Your task to perform on an android device: turn smart compose on in the gmail app Image 0: 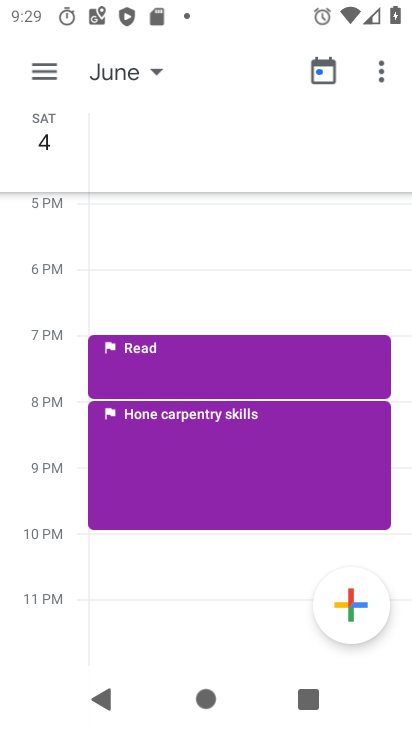
Step 0: press home button
Your task to perform on an android device: turn smart compose on in the gmail app Image 1: 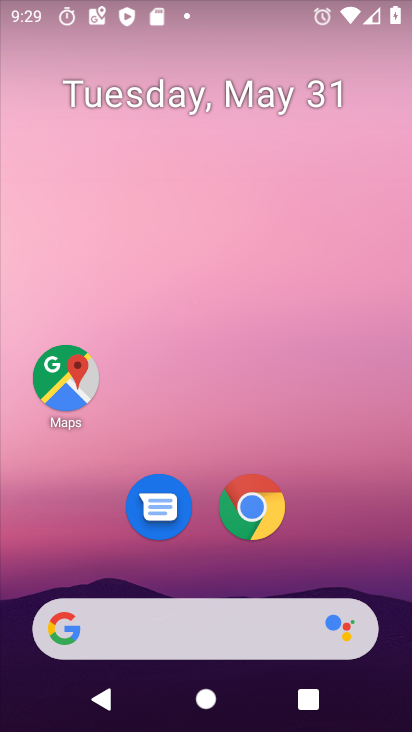
Step 1: drag from (371, 592) to (353, 33)
Your task to perform on an android device: turn smart compose on in the gmail app Image 2: 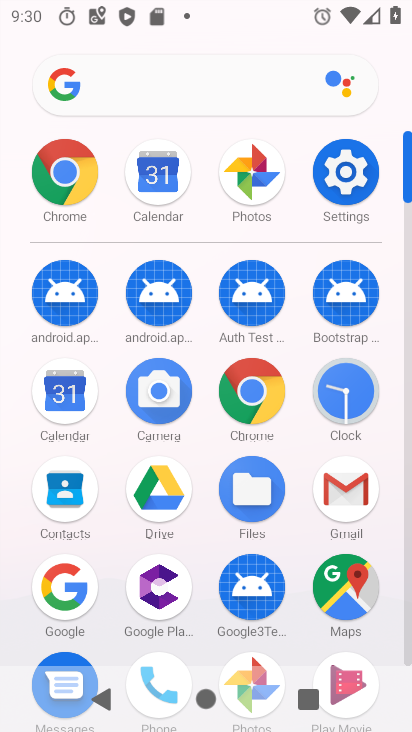
Step 2: click (334, 479)
Your task to perform on an android device: turn smart compose on in the gmail app Image 3: 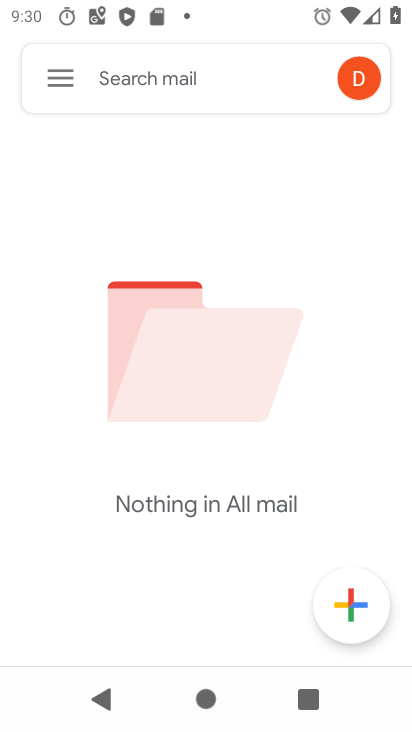
Step 3: click (56, 84)
Your task to perform on an android device: turn smart compose on in the gmail app Image 4: 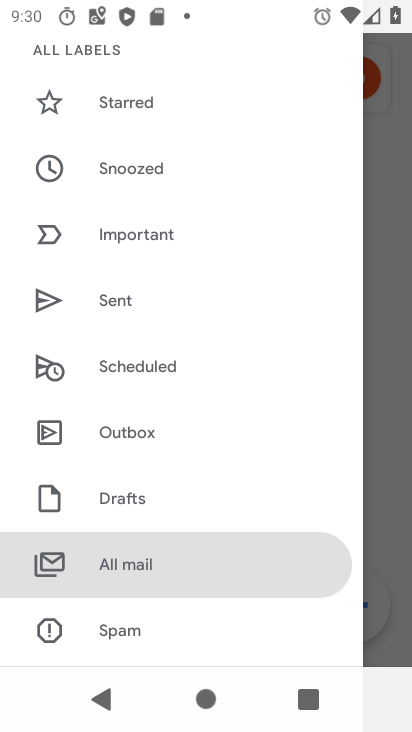
Step 4: drag from (220, 528) to (212, 115)
Your task to perform on an android device: turn smart compose on in the gmail app Image 5: 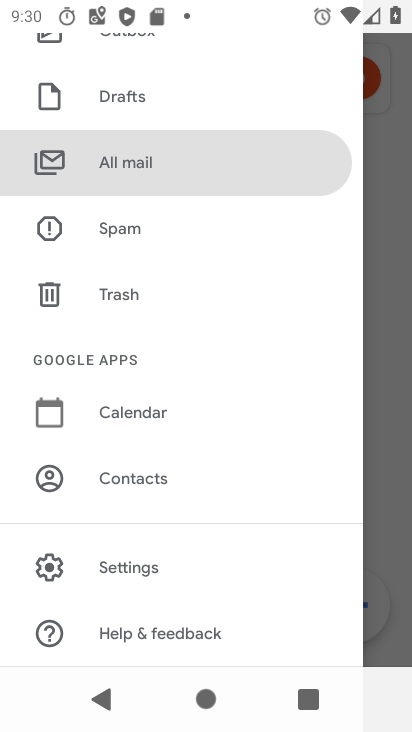
Step 5: click (125, 569)
Your task to perform on an android device: turn smart compose on in the gmail app Image 6: 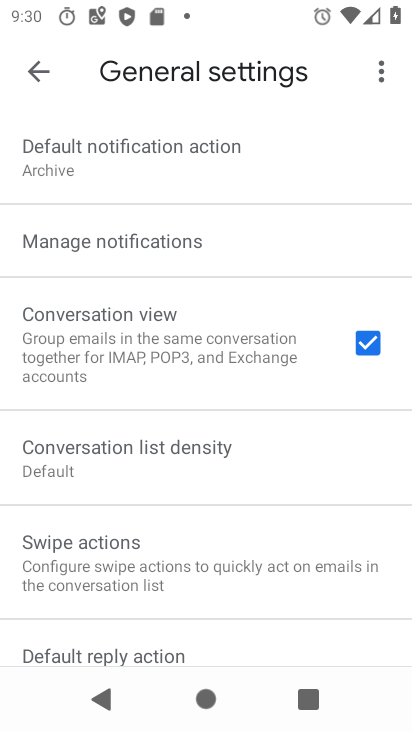
Step 6: click (30, 79)
Your task to perform on an android device: turn smart compose on in the gmail app Image 7: 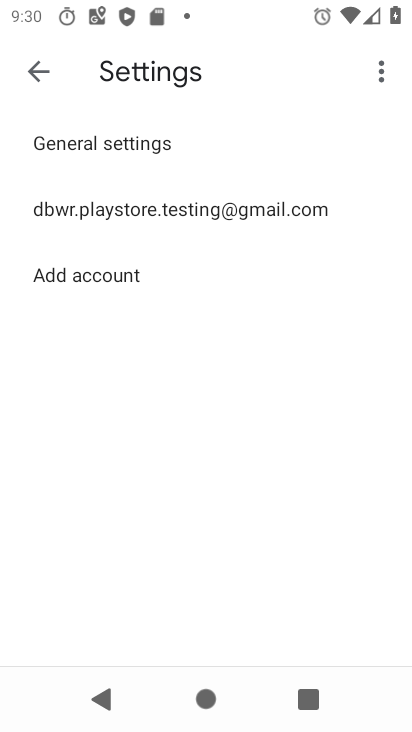
Step 7: click (69, 224)
Your task to perform on an android device: turn smart compose on in the gmail app Image 8: 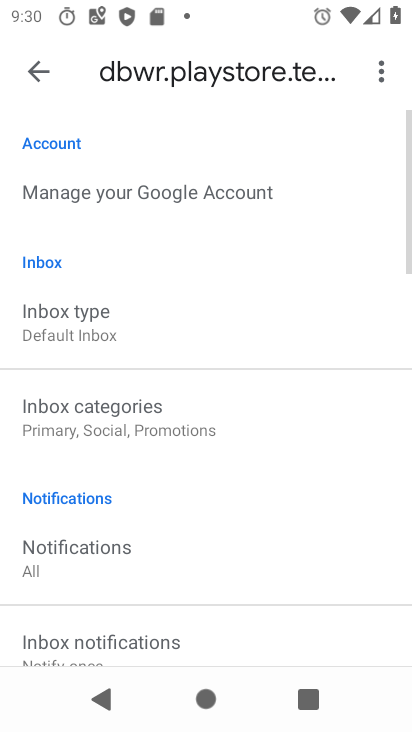
Step 8: task complete